Your task to perform on an android device: Open battery settings Image 0: 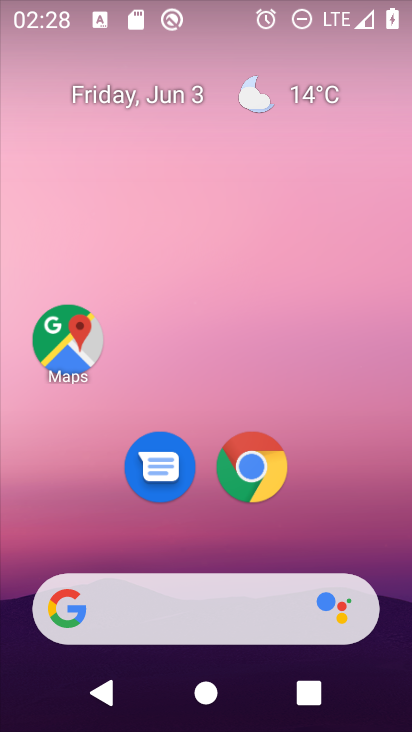
Step 0: drag from (394, 620) to (363, 171)
Your task to perform on an android device: Open battery settings Image 1: 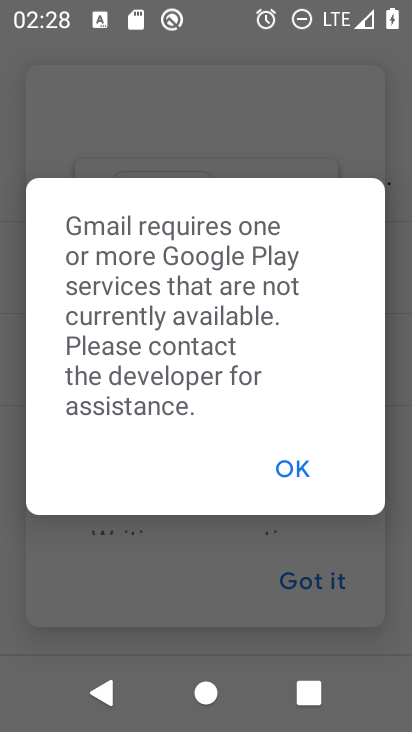
Step 1: click (404, 619)
Your task to perform on an android device: Open battery settings Image 2: 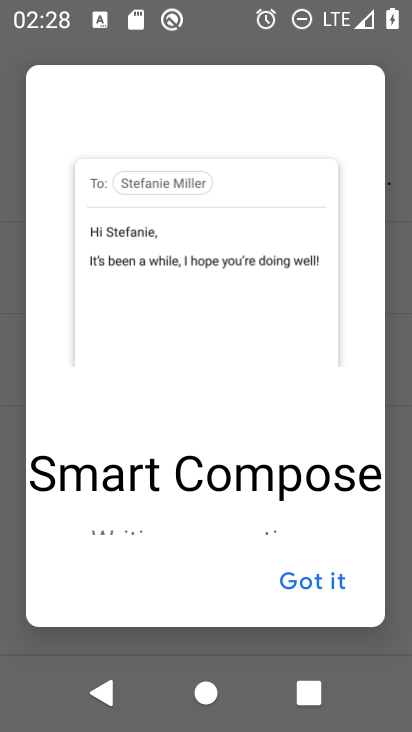
Step 2: press home button
Your task to perform on an android device: Open battery settings Image 3: 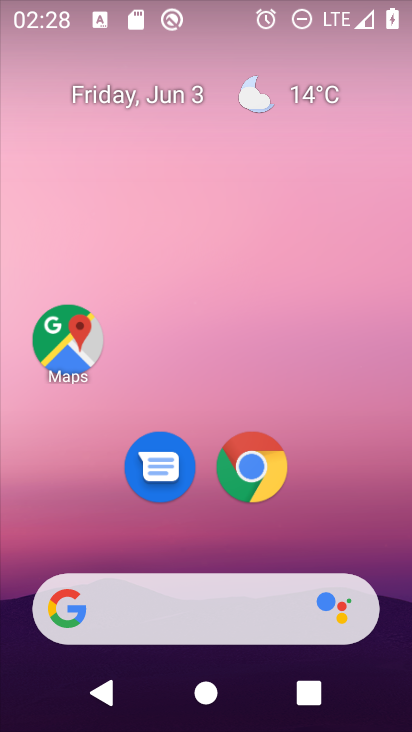
Step 3: drag from (399, 636) to (305, 66)
Your task to perform on an android device: Open battery settings Image 4: 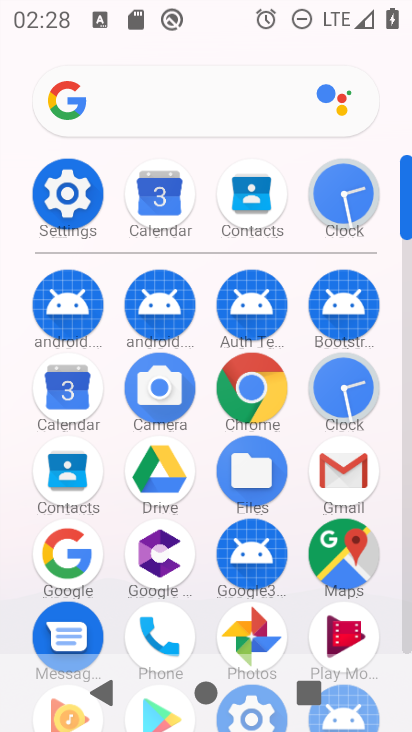
Step 4: click (405, 636)
Your task to perform on an android device: Open battery settings Image 5: 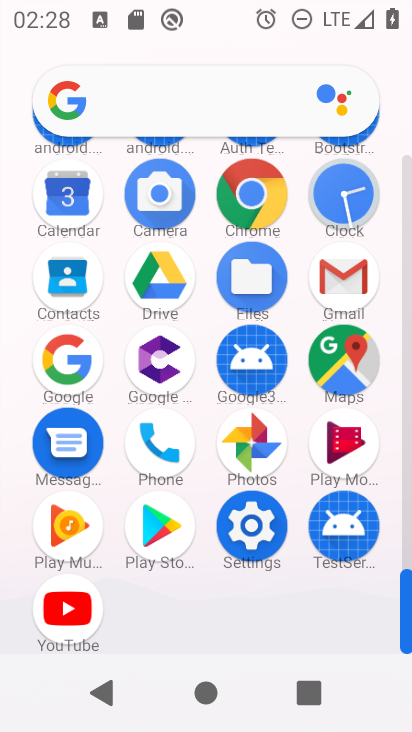
Step 5: click (252, 523)
Your task to perform on an android device: Open battery settings Image 6: 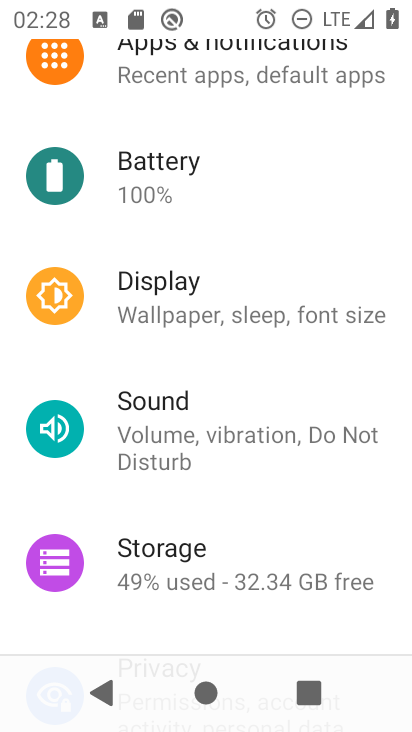
Step 6: click (153, 176)
Your task to perform on an android device: Open battery settings Image 7: 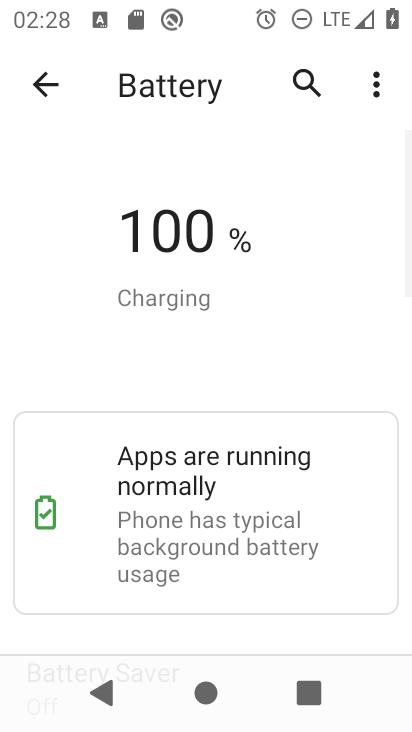
Step 7: task complete